Your task to perform on an android device: Go to Maps Image 0: 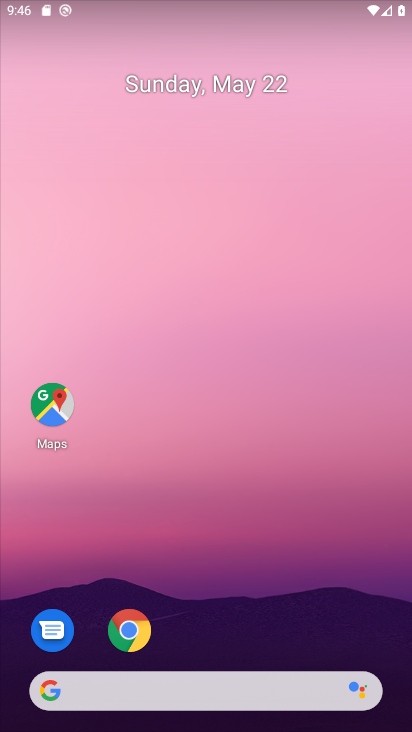
Step 0: click (53, 397)
Your task to perform on an android device: Go to Maps Image 1: 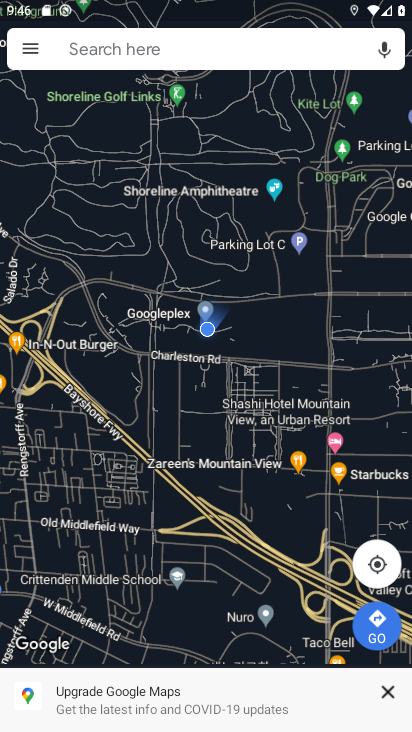
Step 1: task complete